Your task to perform on an android device: Open the web browser Image 0: 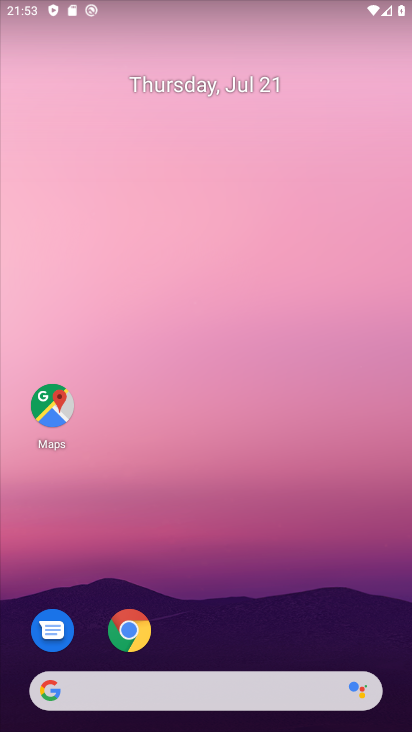
Step 0: click (192, 681)
Your task to perform on an android device: Open the web browser Image 1: 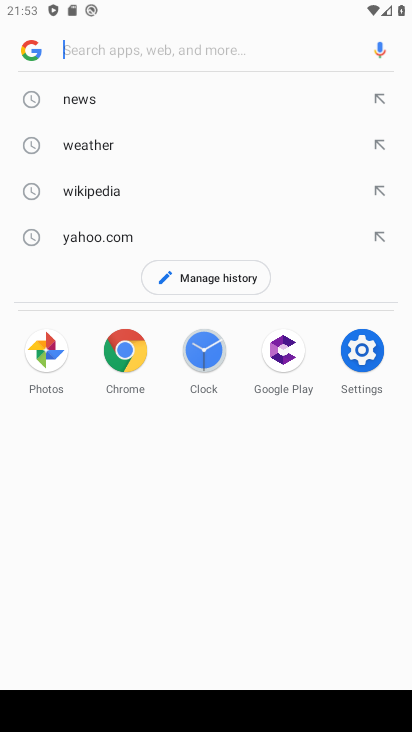
Step 1: task complete